Your task to perform on an android device: Check the weather Image 0: 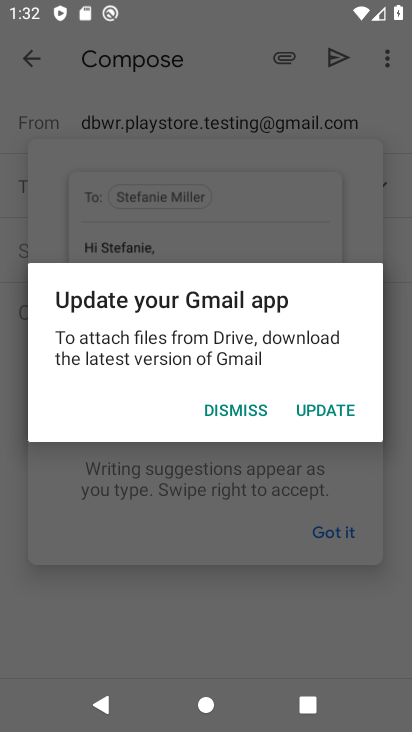
Step 0: press home button
Your task to perform on an android device: Check the weather Image 1: 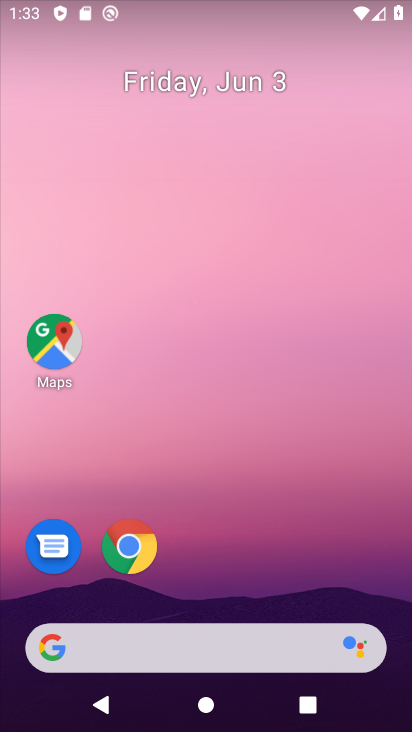
Step 1: click (223, 642)
Your task to perform on an android device: Check the weather Image 2: 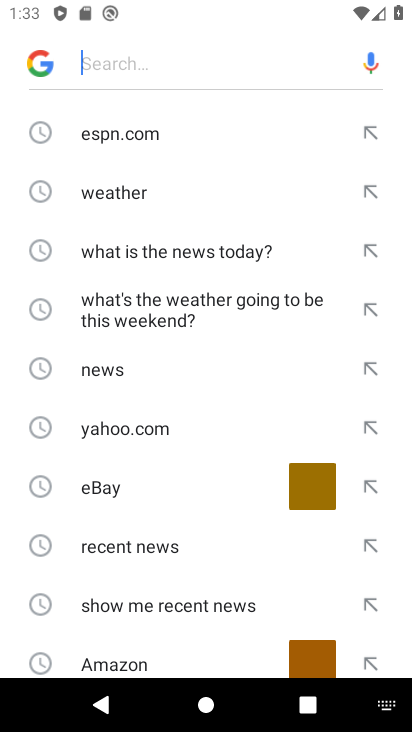
Step 2: click (166, 73)
Your task to perform on an android device: Check the weather Image 3: 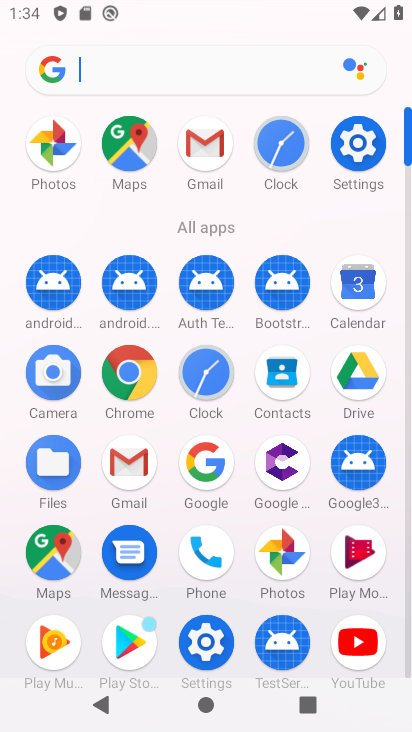
Step 3: click (191, 466)
Your task to perform on an android device: Check the weather Image 4: 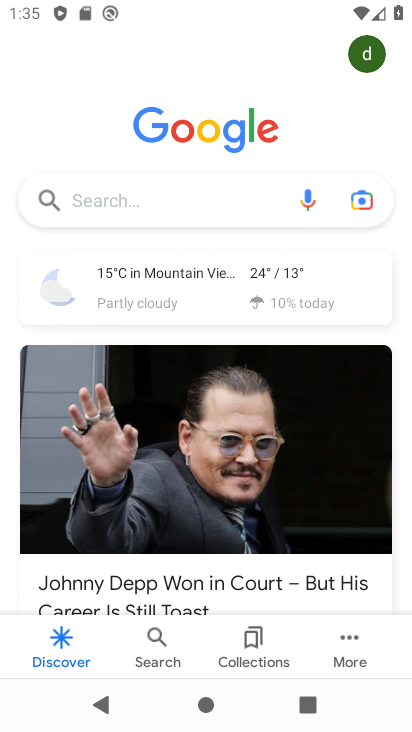
Step 4: click (206, 313)
Your task to perform on an android device: Check the weather Image 5: 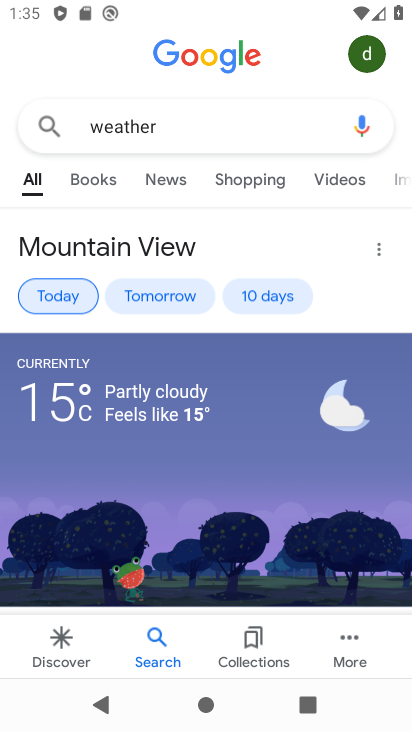
Step 5: task complete